Your task to perform on an android device: Open settings Image 0: 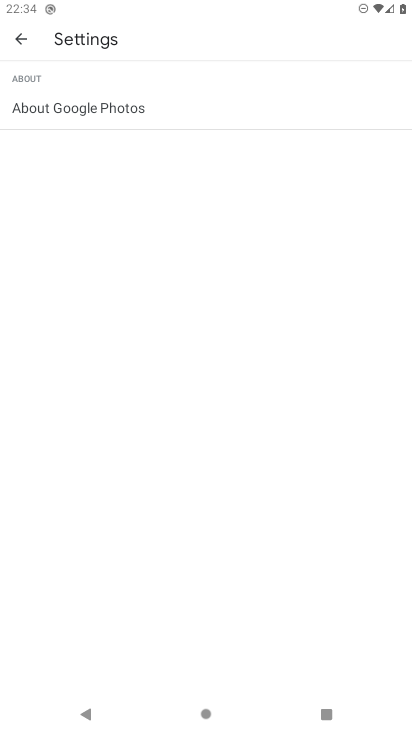
Step 0: press home button
Your task to perform on an android device: Open settings Image 1: 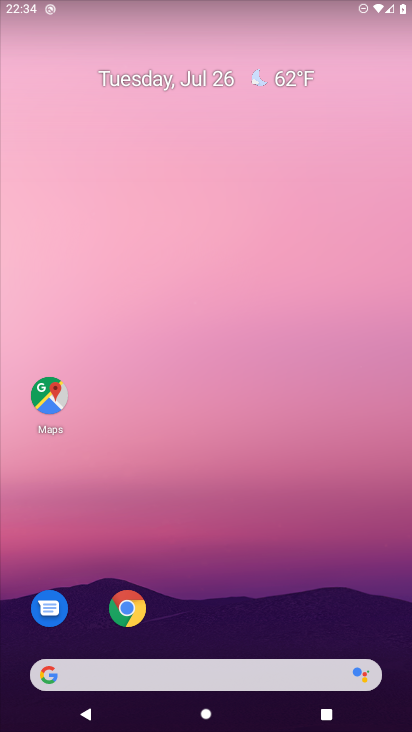
Step 1: drag from (42, 658) to (254, 137)
Your task to perform on an android device: Open settings Image 2: 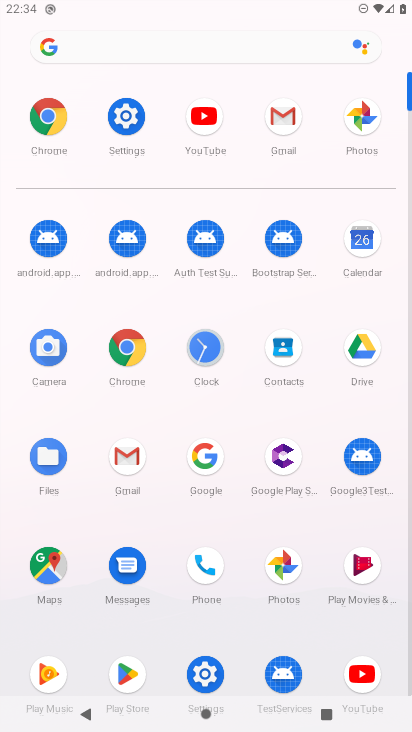
Step 2: click (206, 674)
Your task to perform on an android device: Open settings Image 3: 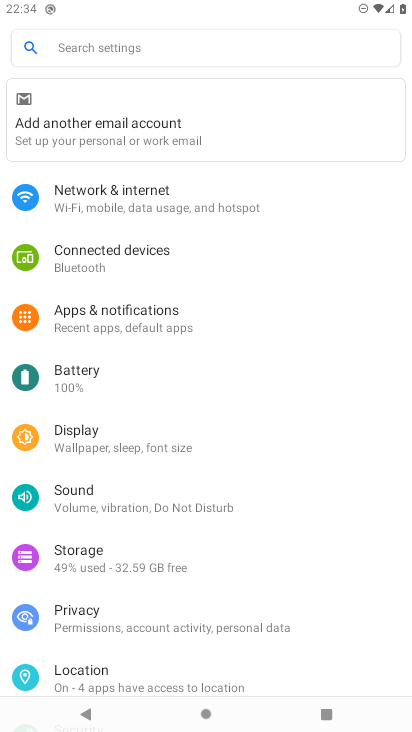
Step 3: task complete